Your task to perform on an android device: set the timer Image 0: 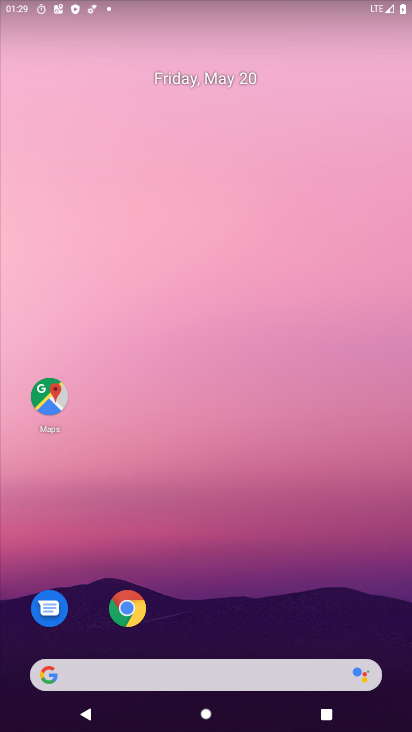
Step 0: drag from (335, 597) to (339, 123)
Your task to perform on an android device: set the timer Image 1: 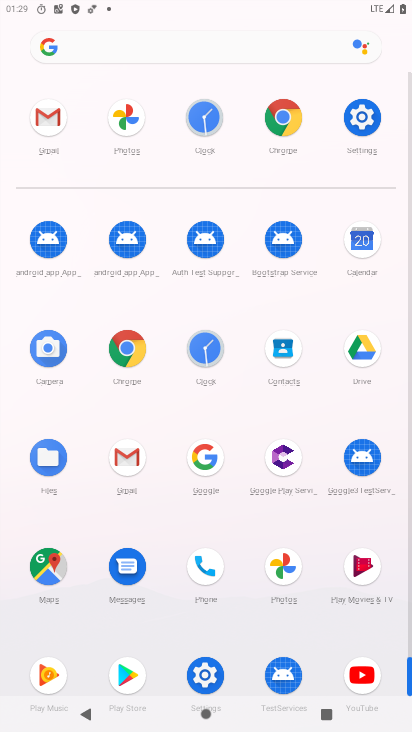
Step 1: click (222, 349)
Your task to perform on an android device: set the timer Image 2: 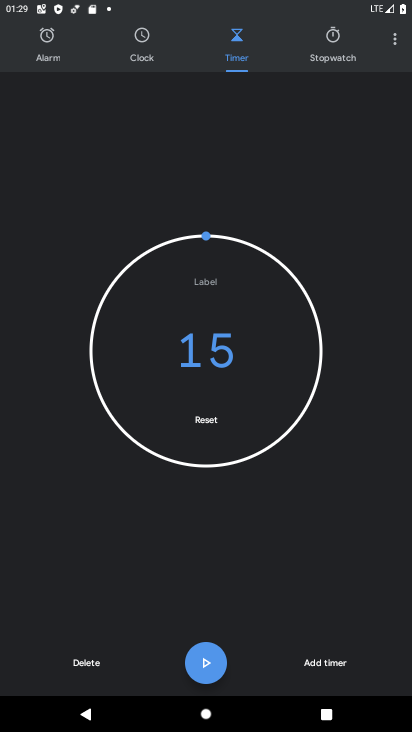
Step 2: click (212, 675)
Your task to perform on an android device: set the timer Image 3: 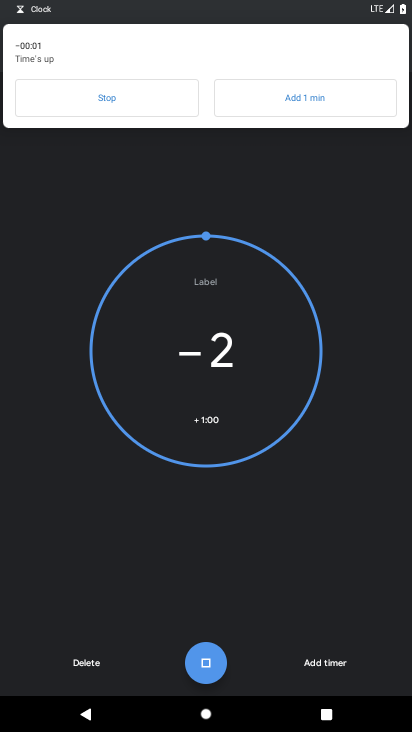
Step 3: click (78, 107)
Your task to perform on an android device: set the timer Image 4: 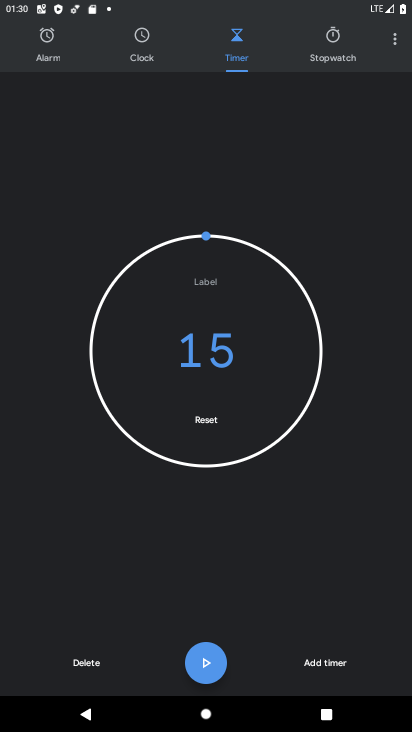
Step 4: task complete